Your task to perform on an android device: uninstall "VLC for Android" Image 0: 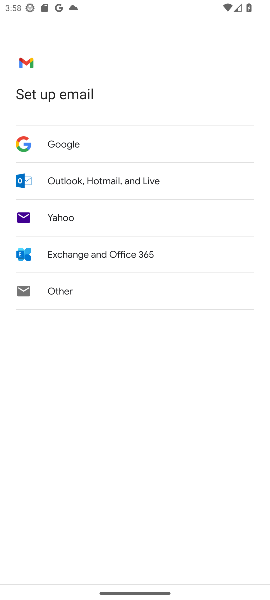
Step 0: press home button
Your task to perform on an android device: uninstall "VLC for Android" Image 1: 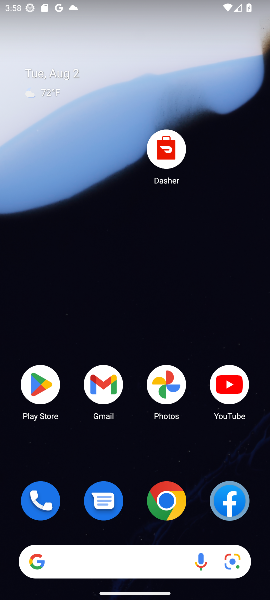
Step 1: click (36, 388)
Your task to perform on an android device: uninstall "VLC for Android" Image 2: 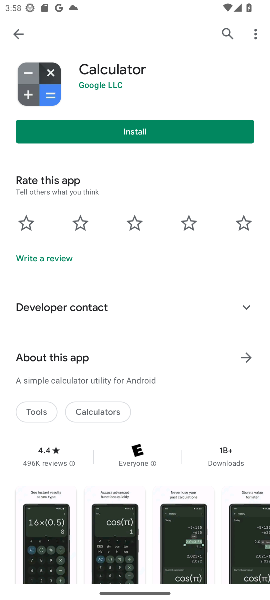
Step 2: click (225, 26)
Your task to perform on an android device: uninstall "VLC for Android" Image 3: 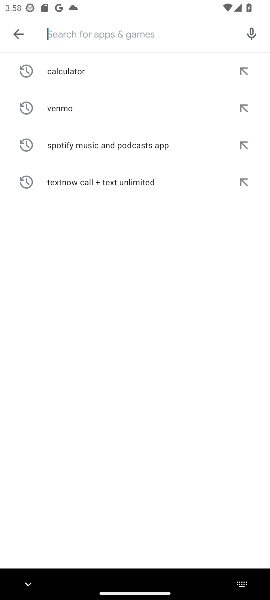
Step 3: type "VLC for Android"
Your task to perform on an android device: uninstall "VLC for Android" Image 4: 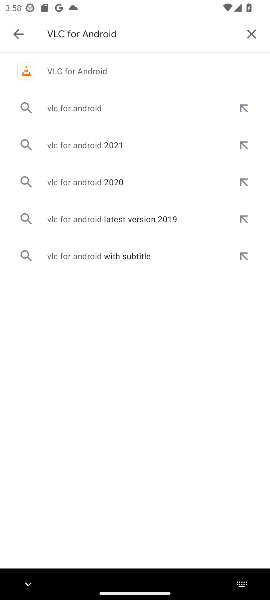
Step 4: click (73, 77)
Your task to perform on an android device: uninstall "VLC for Android" Image 5: 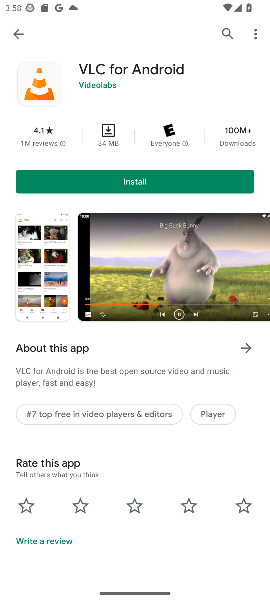
Step 5: task complete